Your task to perform on an android device: stop showing notifications on the lock screen Image 0: 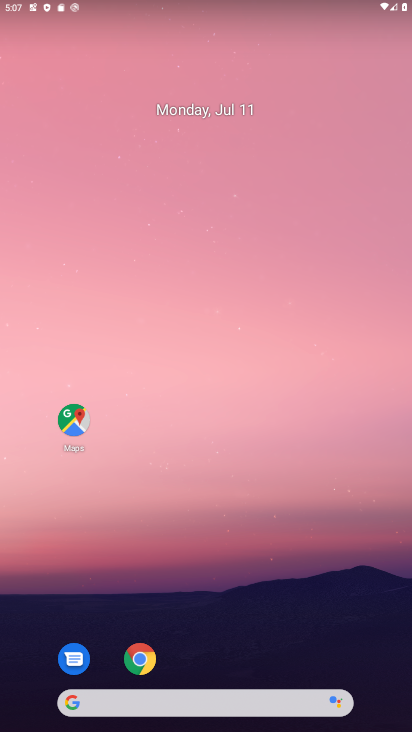
Step 0: drag from (346, 650) to (304, 28)
Your task to perform on an android device: stop showing notifications on the lock screen Image 1: 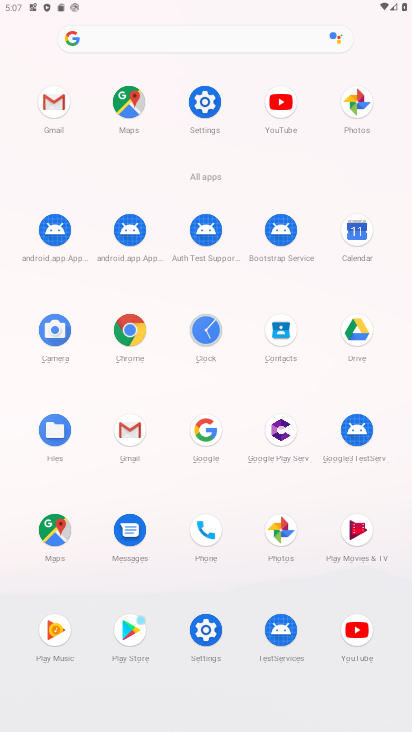
Step 1: click (207, 629)
Your task to perform on an android device: stop showing notifications on the lock screen Image 2: 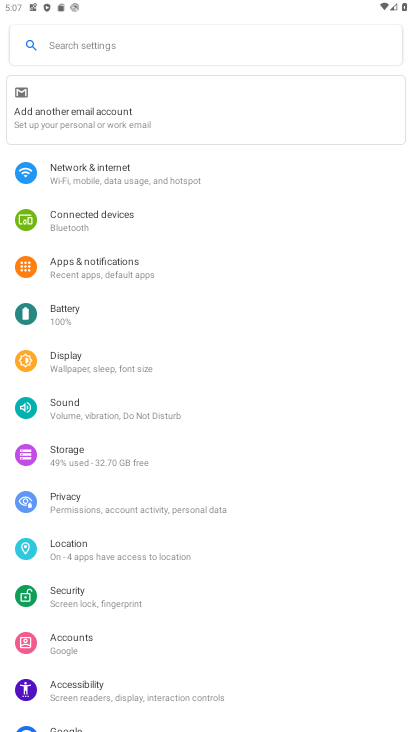
Step 2: click (108, 260)
Your task to perform on an android device: stop showing notifications on the lock screen Image 3: 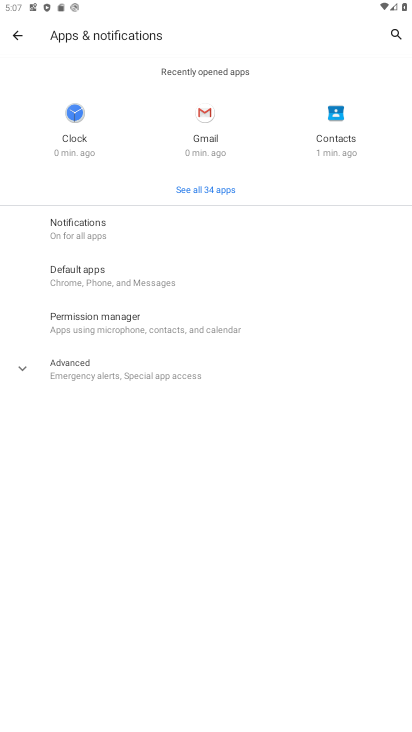
Step 3: click (81, 222)
Your task to perform on an android device: stop showing notifications on the lock screen Image 4: 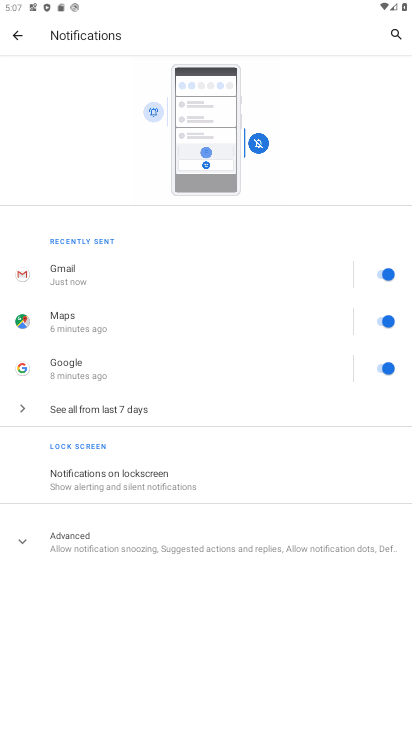
Step 4: click (114, 484)
Your task to perform on an android device: stop showing notifications on the lock screen Image 5: 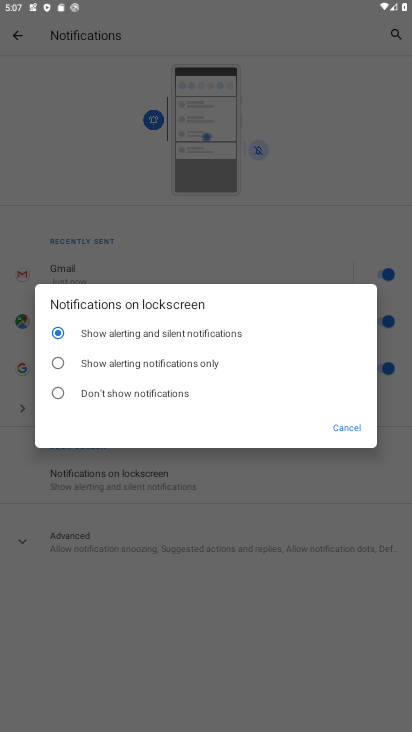
Step 5: click (60, 397)
Your task to perform on an android device: stop showing notifications on the lock screen Image 6: 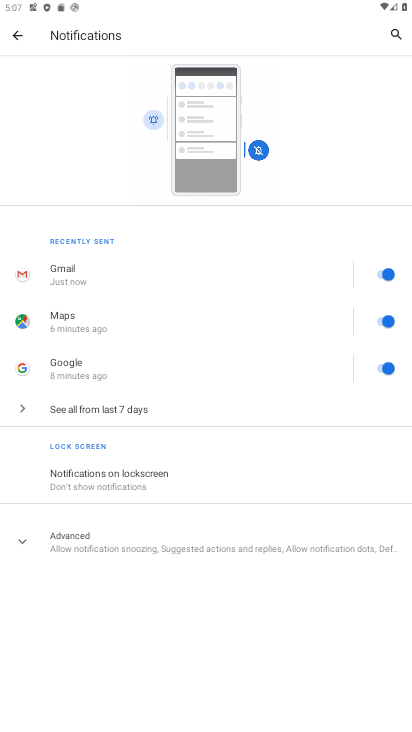
Step 6: task complete